Your task to perform on an android device: Go to accessibility settings Image 0: 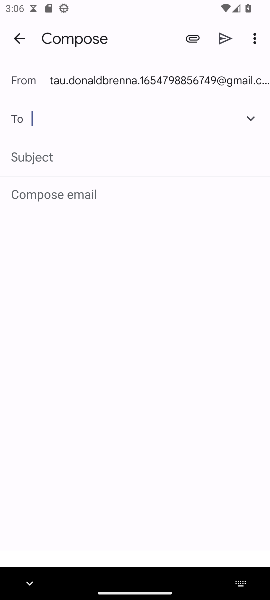
Step 0: press home button
Your task to perform on an android device: Go to accessibility settings Image 1: 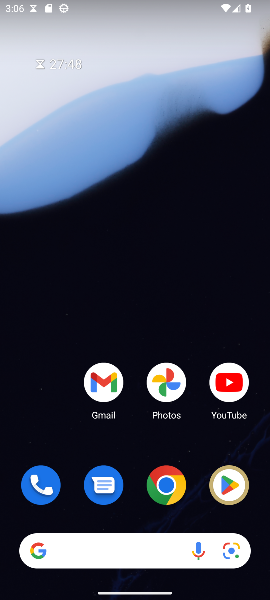
Step 1: drag from (135, 449) to (131, 60)
Your task to perform on an android device: Go to accessibility settings Image 2: 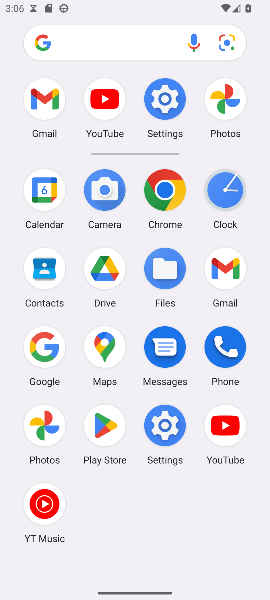
Step 2: click (162, 418)
Your task to perform on an android device: Go to accessibility settings Image 3: 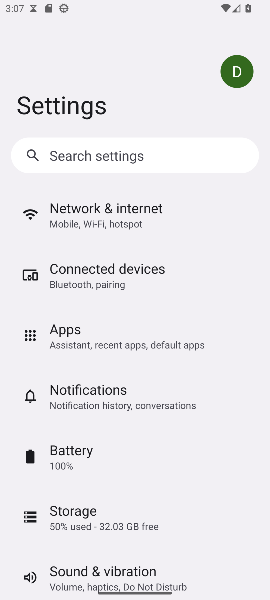
Step 3: drag from (126, 527) to (151, 152)
Your task to perform on an android device: Go to accessibility settings Image 4: 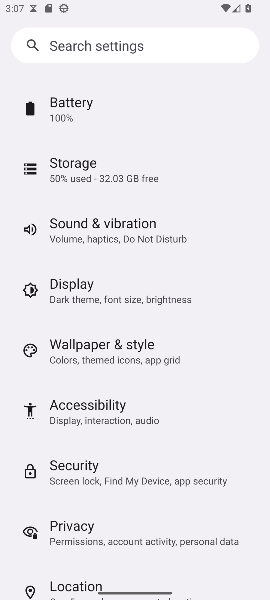
Step 4: click (134, 404)
Your task to perform on an android device: Go to accessibility settings Image 5: 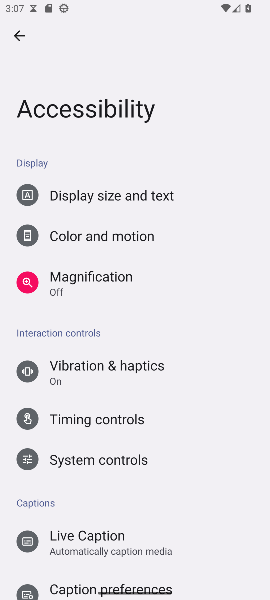
Step 5: task complete